Your task to perform on an android device: check out phone information Image 0: 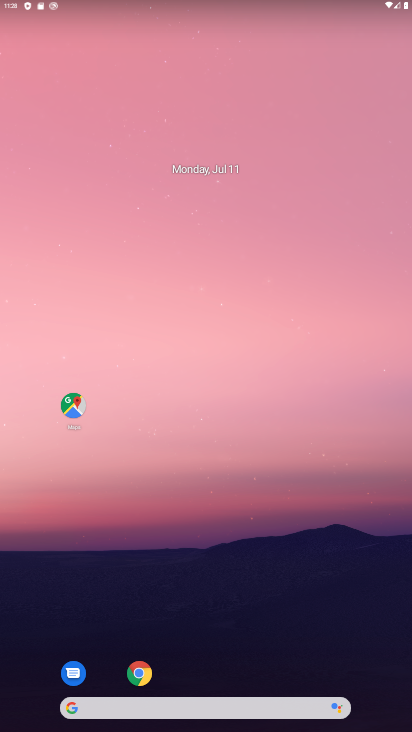
Step 0: press home button
Your task to perform on an android device: check out phone information Image 1: 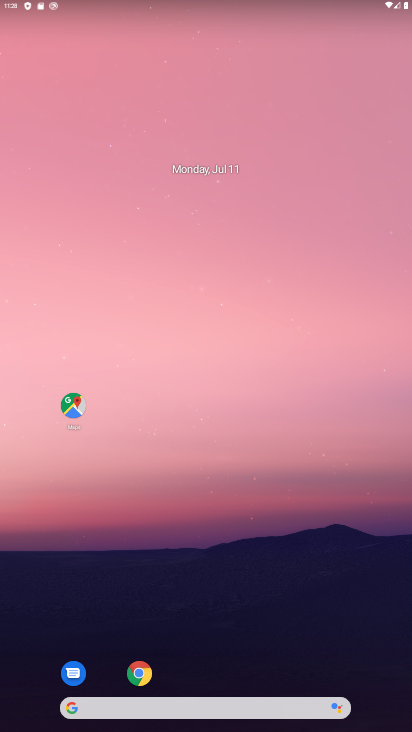
Step 1: drag from (232, 677) to (253, 95)
Your task to perform on an android device: check out phone information Image 2: 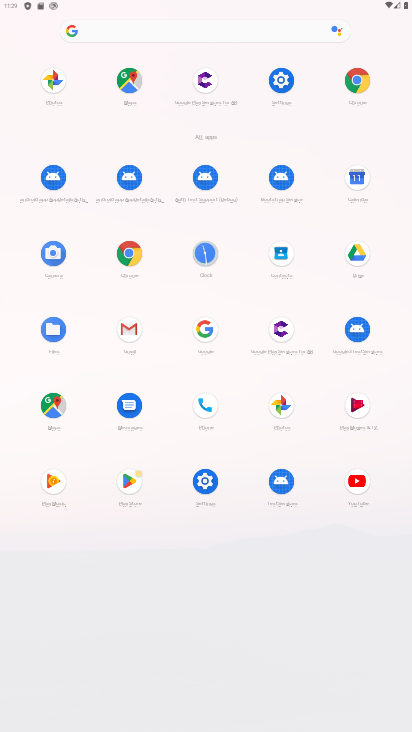
Step 2: click (203, 478)
Your task to perform on an android device: check out phone information Image 3: 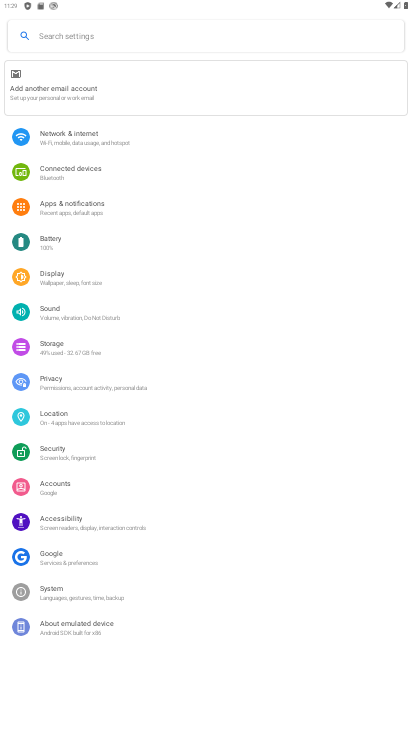
Step 3: click (116, 627)
Your task to perform on an android device: check out phone information Image 4: 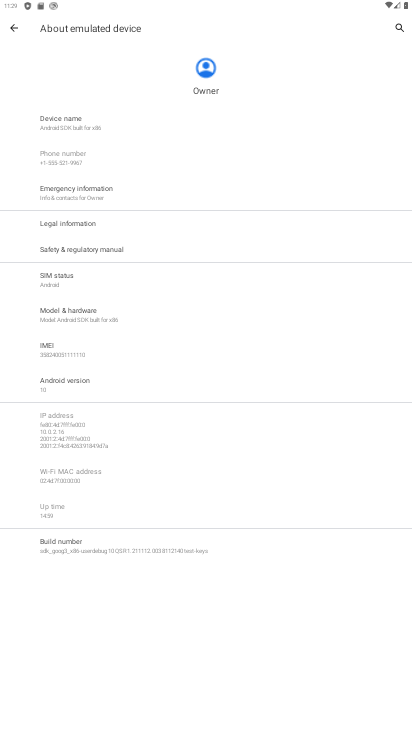
Step 4: task complete